Your task to perform on an android device: Open calendar and show me the fourth week of next month Image 0: 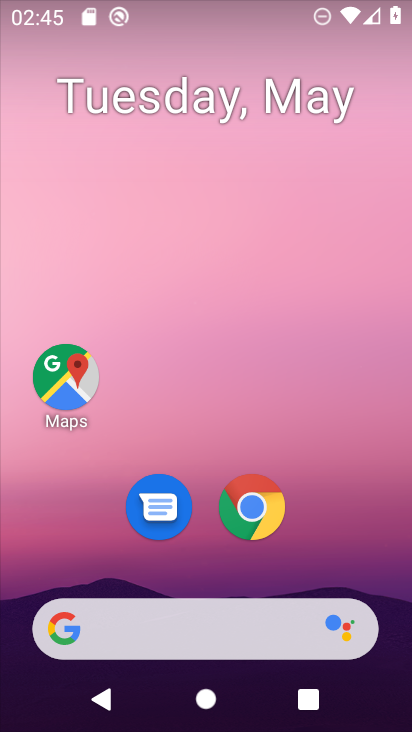
Step 0: drag from (205, 576) to (207, 221)
Your task to perform on an android device: Open calendar and show me the fourth week of next month Image 1: 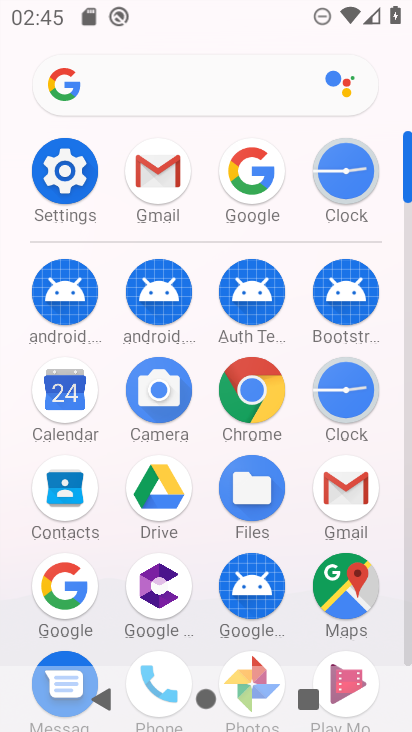
Step 1: click (60, 387)
Your task to perform on an android device: Open calendar and show me the fourth week of next month Image 2: 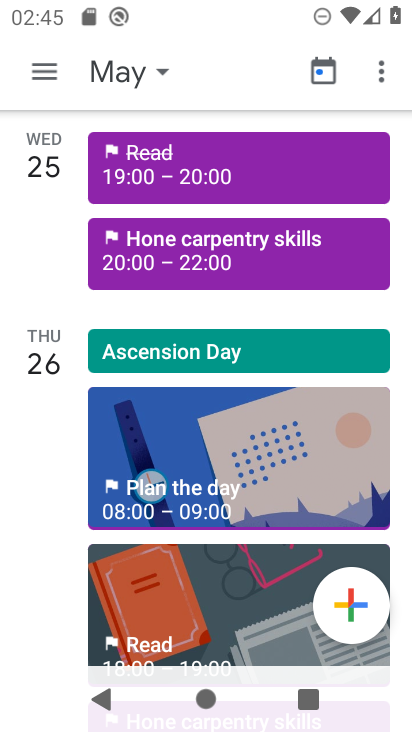
Step 2: click (161, 76)
Your task to perform on an android device: Open calendar and show me the fourth week of next month Image 3: 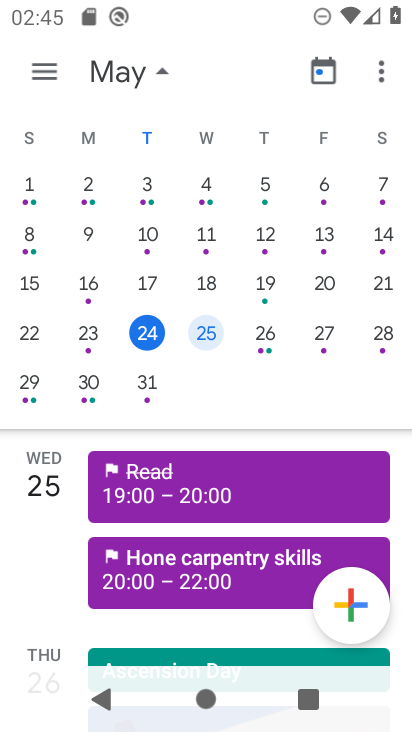
Step 3: drag from (354, 224) to (24, 247)
Your task to perform on an android device: Open calendar and show me the fourth week of next month Image 4: 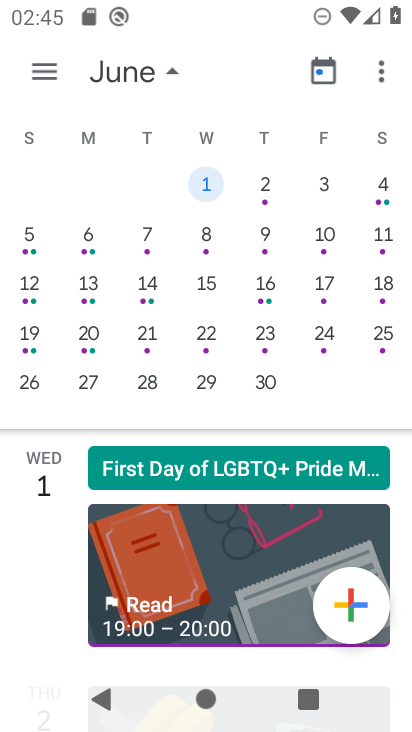
Step 4: click (30, 326)
Your task to perform on an android device: Open calendar and show me the fourth week of next month Image 5: 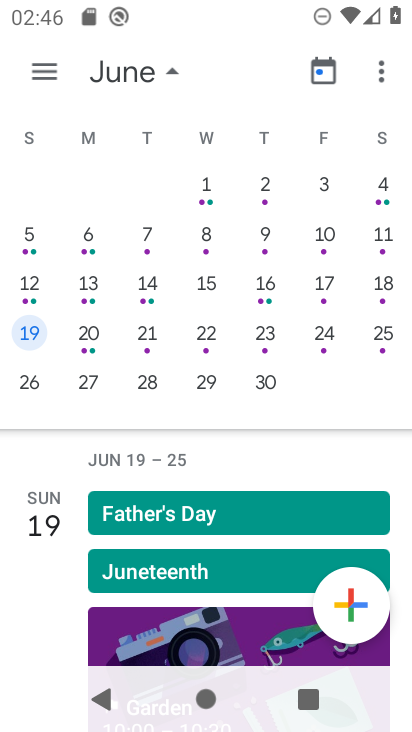
Step 5: task complete